Your task to perform on an android device: uninstall "Etsy: Buy & Sell Unique Items" Image 0: 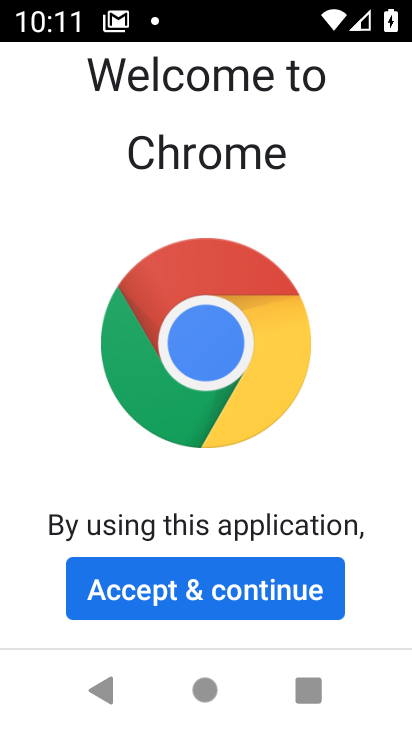
Step 0: press home button
Your task to perform on an android device: uninstall "Etsy: Buy & Sell Unique Items" Image 1: 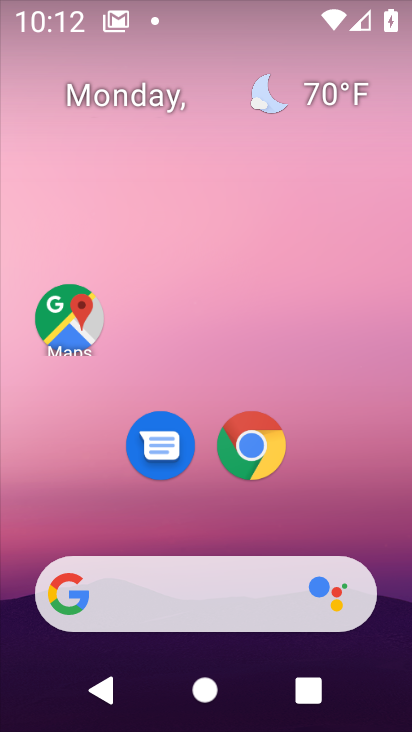
Step 1: drag from (259, 221) to (267, 181)
Your task to perform on an android device: uninstall "Etsy: Buy & Sell Unique Items" Image 2: 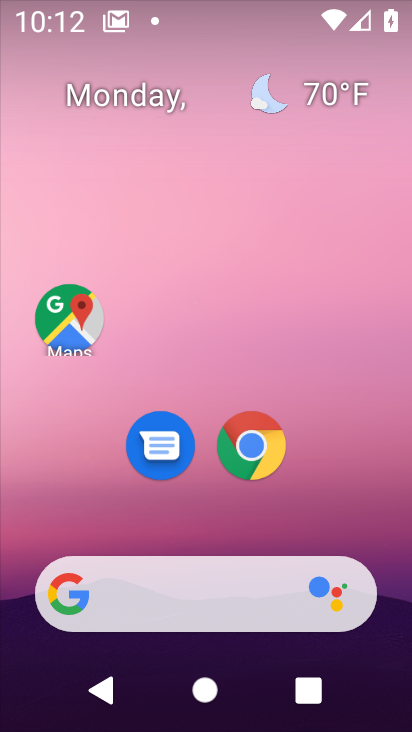
Step 2: drag from (223, 607) to (256, 220)
Your task to perform on an android device: uninstall "Etsy: Buy & Sell Unique Items" Image 3: 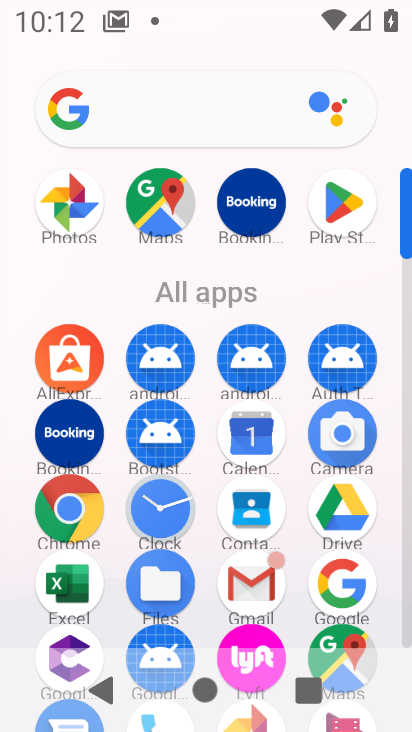
Step 3: click (336, 219)
Your task to perform on an android device: uninstall "Etsy: Buy & Sell Unique Items" Image 4: 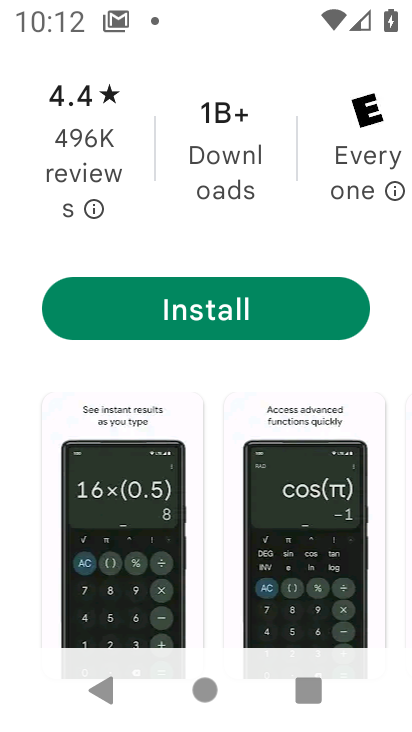
Step 4: press back button
Your task to perform on an android device: uninstall "Etsy: Buy & Sell Unique Items" Image 5: 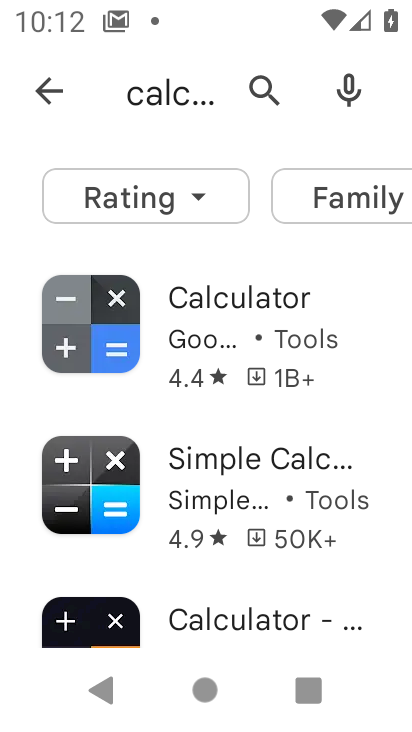
Step 5: click (50, 105)
Your task to perform on an android device: uninstall "Etsy: Buy & Sell Unique Items" Image 6: 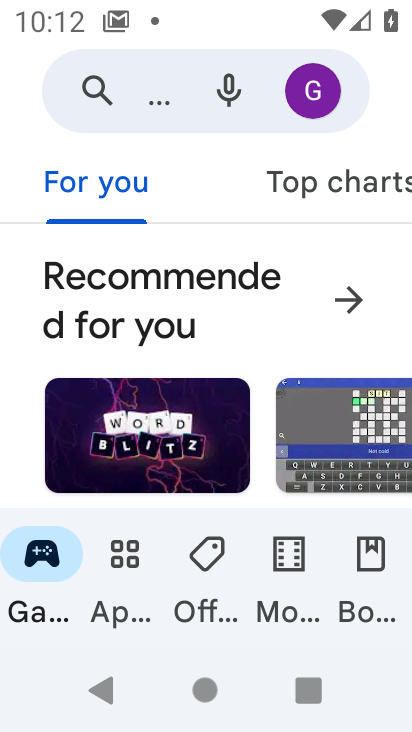
Step 6: click (87, 95)
Your task to perform on an android device: uninstall "Etsy: Buy & Sell Unique Items" Image 7: 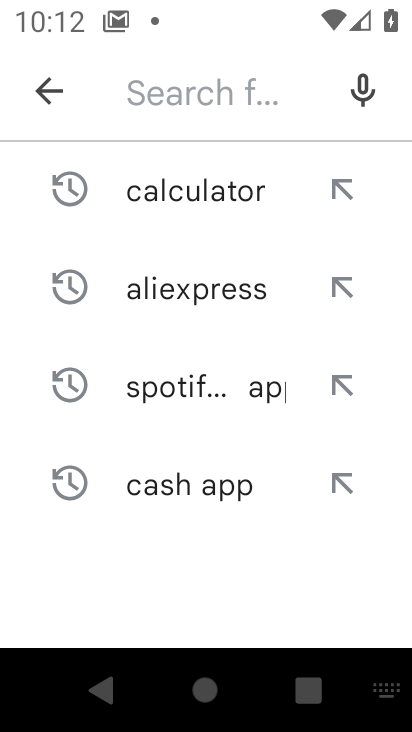
Step 7: type "Etsy: Buy & Sell Unique Items"
Your task to perform on an android device: uninstall "Etsy: Buy & Sell Unique Items" Image 8: 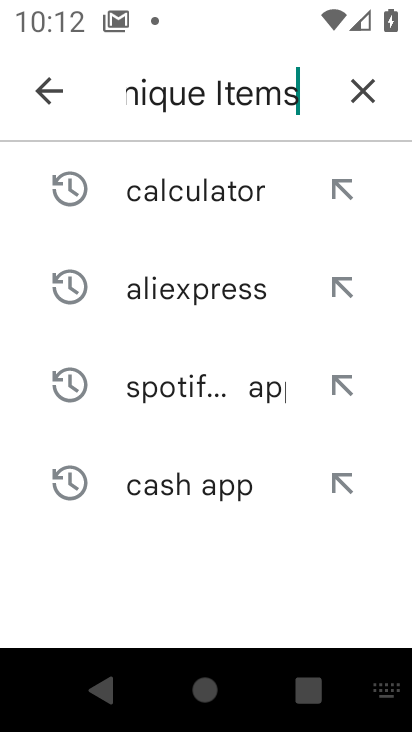
Step 8: type ""
Your task to perform on an android device: uninstall "Etsy: Buy & Sell Unique Items" Image 9: 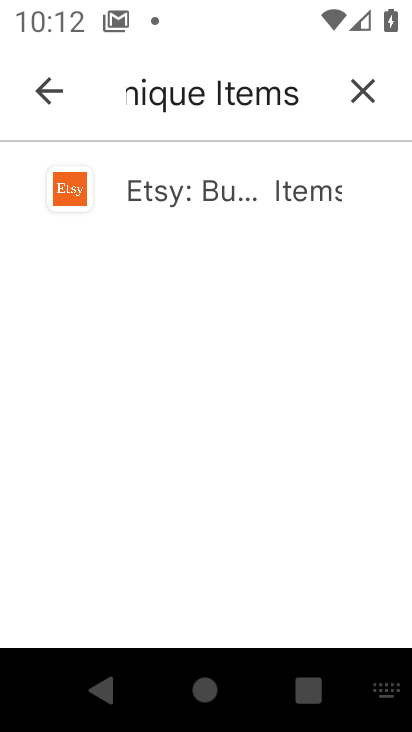
Step 9: click (227, 191)
Your task to perform on an android device: uninstall "Etsy: Buy & Sell Unique Items" Image 10: 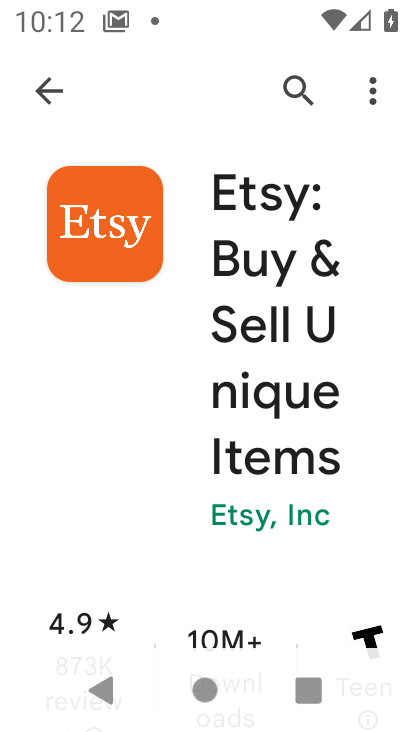
Step 10: task complete